Your task to perform on an android device: turn on translation in the chrome app Image 0: 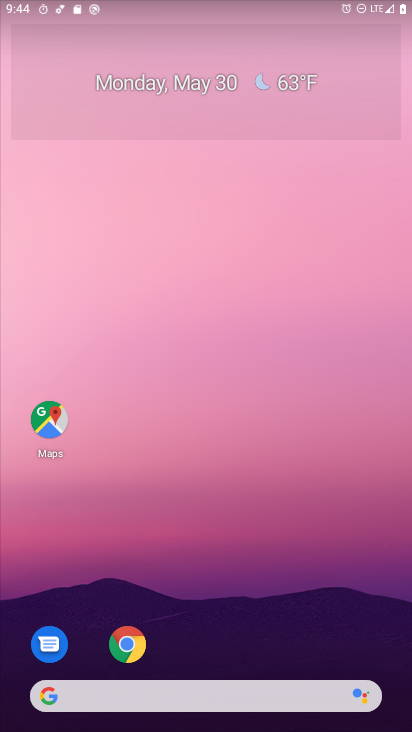
Step 0: click (125, 641)
Your task to perform on an android device: turn on translation in the chrome app Image 1: 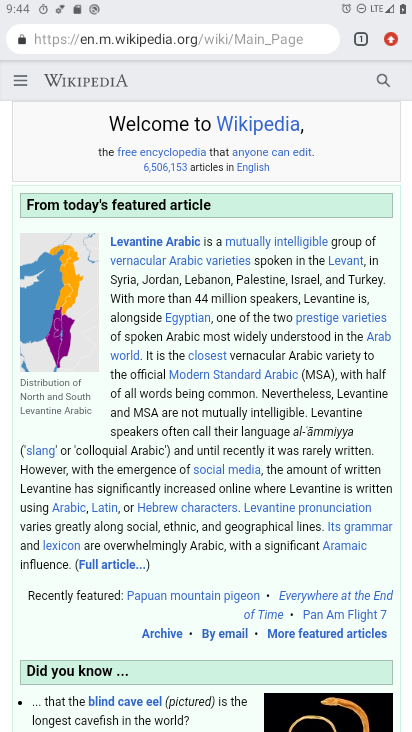
Step 1: click (389, 41)
Your task to perform on an android device: turn on translation in the chrome app Image 2: 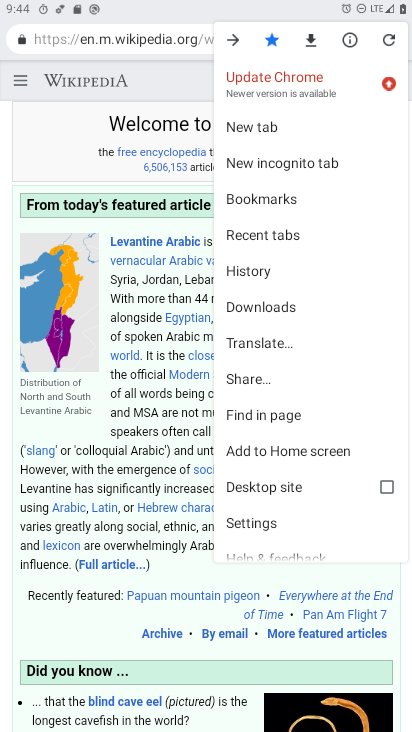
Step 2: click (279, 524)
Your task to perform on an android device: turn on translation in the chrome app Image 3: 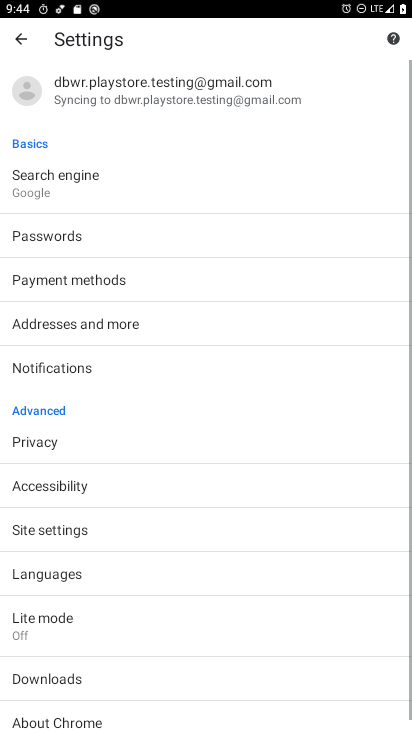
Step 3: drag from (109, 636) to (117, 466)
Your task to perform on an android device: turn on translation in the chrome app Image 4: 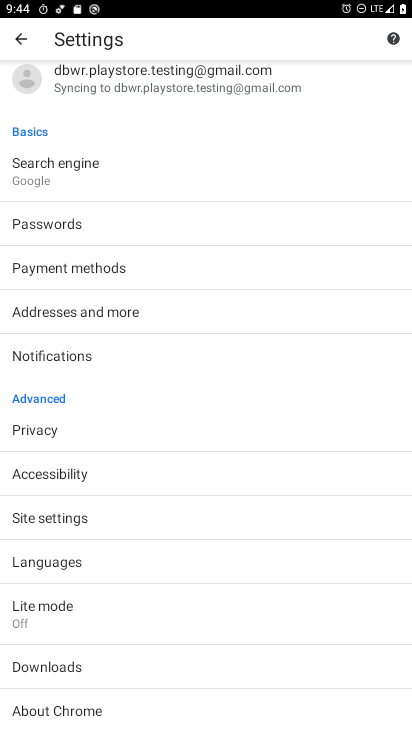
Step 4: click (68, 568)
Your task to perform on an android device: turn on translation in the chrome app Image 5: 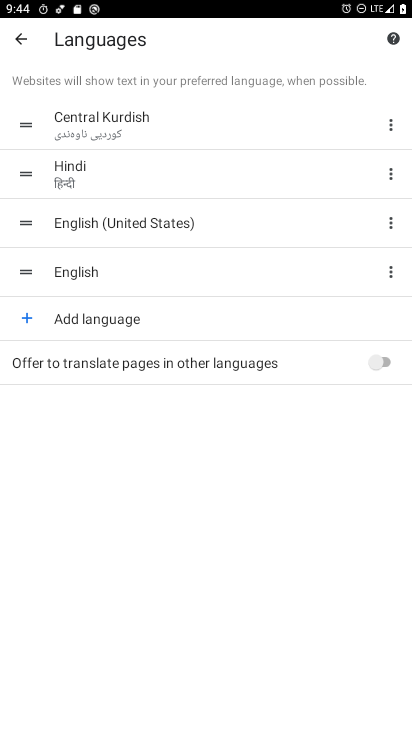
Step 5: click (383, 362)
Your task to perform on an android device: turn on translation in the chrome app Image 6: 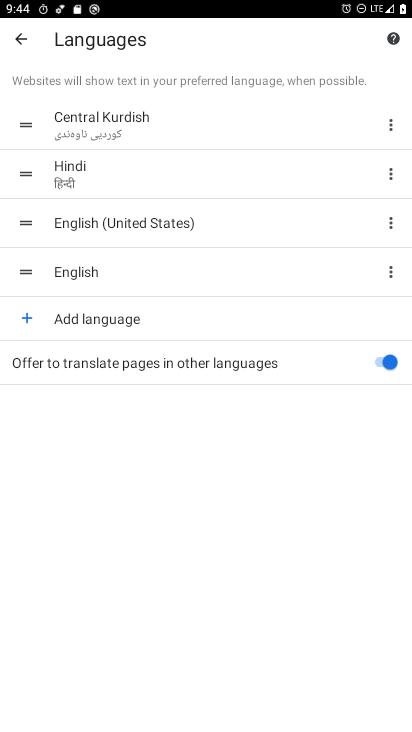
Step 6: task complete